Your task to perform on an android device: open the mobile data screen to see how much data has been used Image 0: 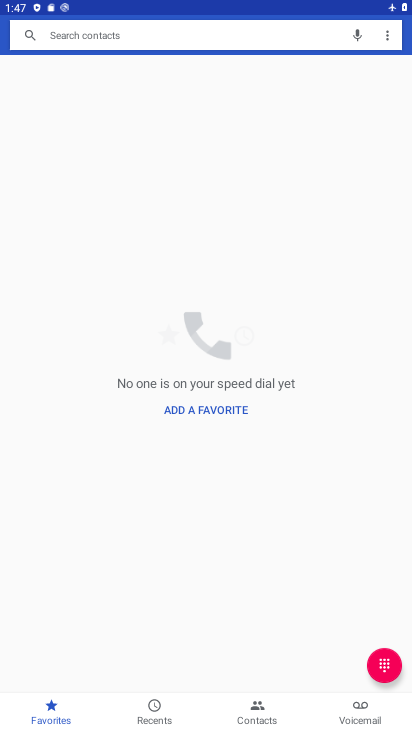
Step 0: press home button
Your task to perform on an android device: open the mobile data screen to see how much data has been used Image 1: 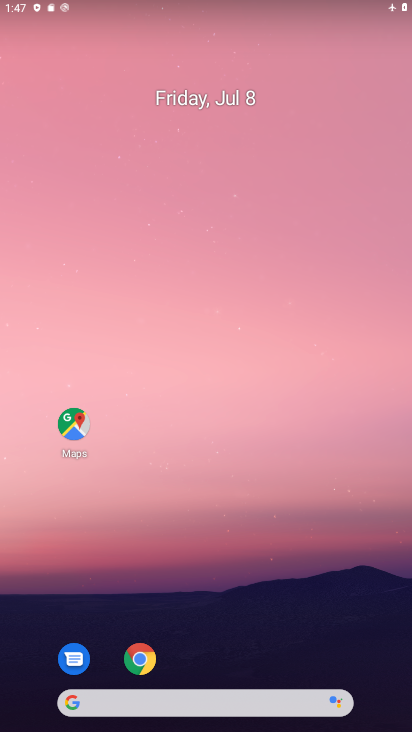
Step 1: drag from (236, 620) to (254, 0)
Your task to perform on an android device: open the mobile data screen to see how much data has been used Image 2: 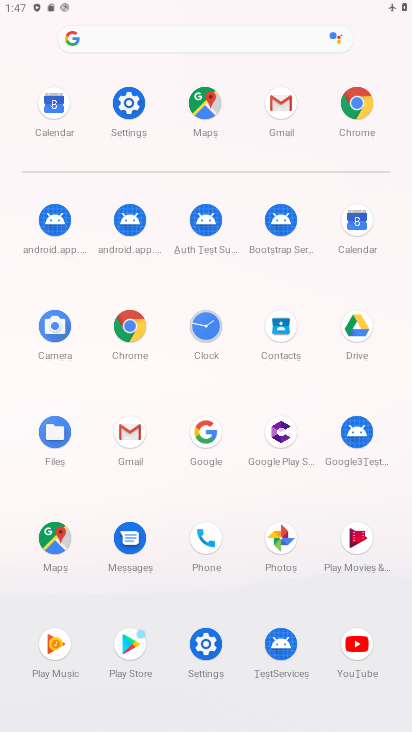
Step 2: click (219, 652)
Your task to perform on an android device: open the mobile data screen to see how much data has been used Image 3: 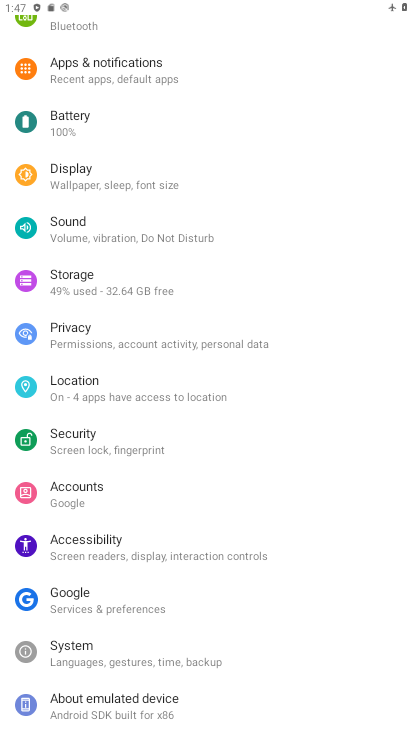
Step 3: drag from (165, 117) to (236, 571)
Your task to perform on an android device: open the mobile data screen to see how much data has been used Image 4: 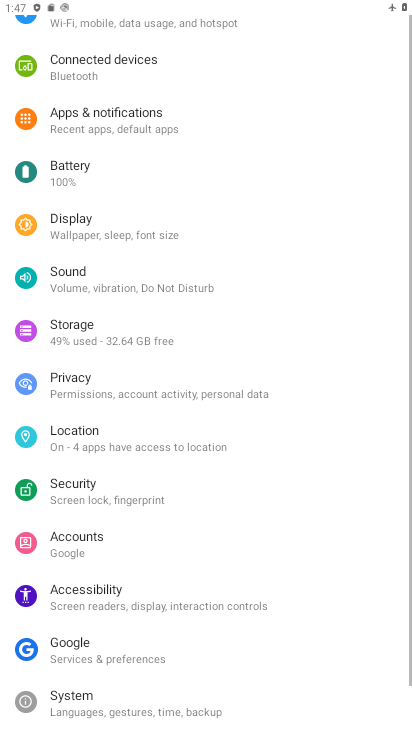
Step 4: click (171, 114)
Your task to perform on an android device: open the mobile data screen to see how much data has been used Image 5: 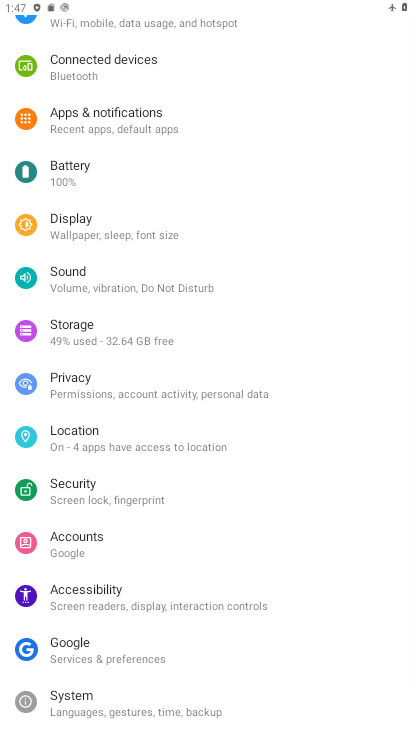
Step 5: drag from (171, 72) to (245, 468)
Your task to perform on an android device: open the mobile data screen to see how much data has been used Image 6: 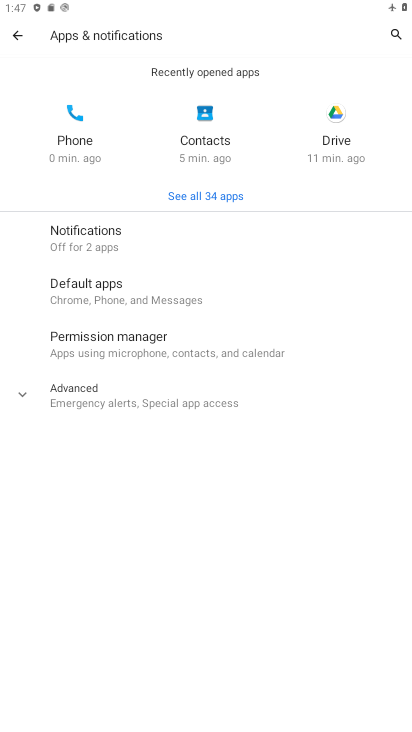
Step 6: press back button
Your task to perform on an android device: open the mobile data screen to see how much data has been used Image 7: 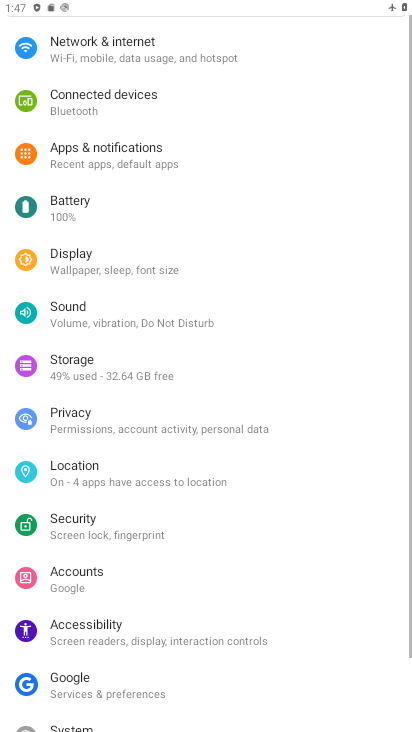
Step 7: drag from (239, 123) to (209, 589)
Your task to perform on an android device: open the mobile data screen to see how much data has been used Image 8: 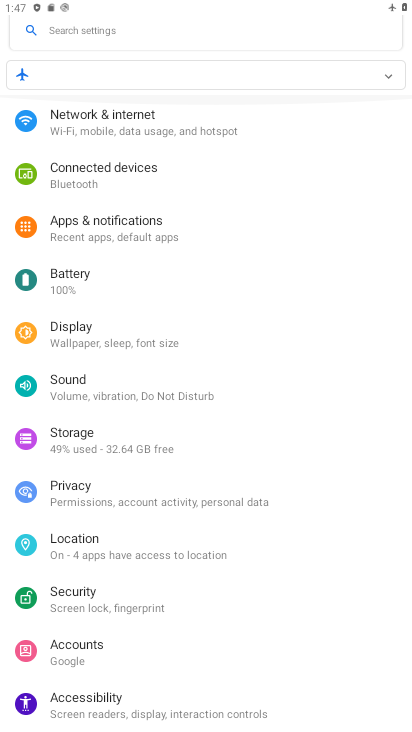
Step 8: click (120, 145)
Your task to perform on an android device: open the mobile data screen to see how much data has been used Image 9: 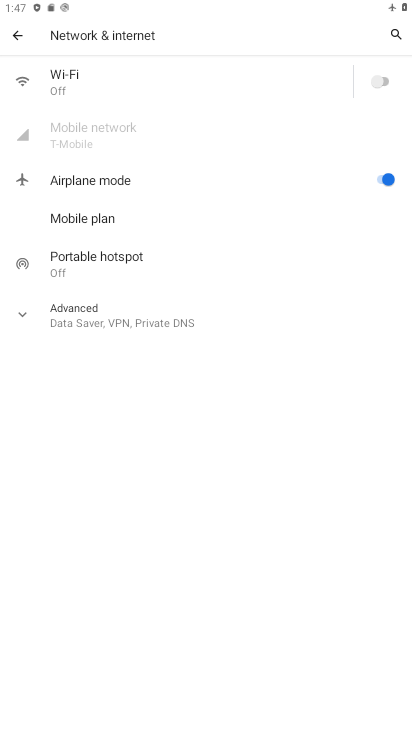
Step 9: click (122, 320)
Your task to perform on an android device: open the mobile data screen to see how much data has been used Image 10: 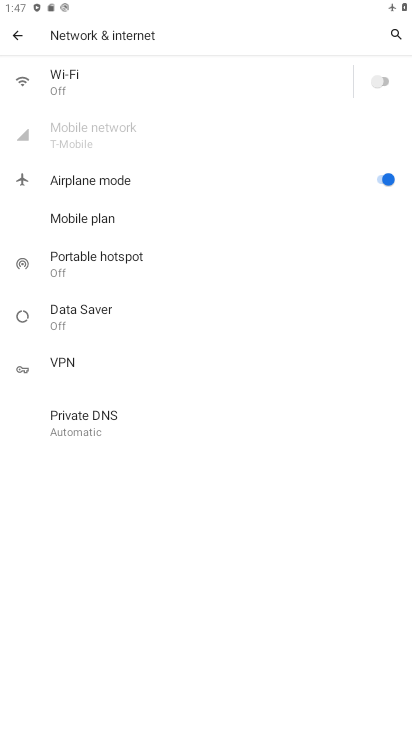
Step 10: click (119, 135)
Your task to perform on an android device: open the mobile data screen to see how much data has been used Image 11: 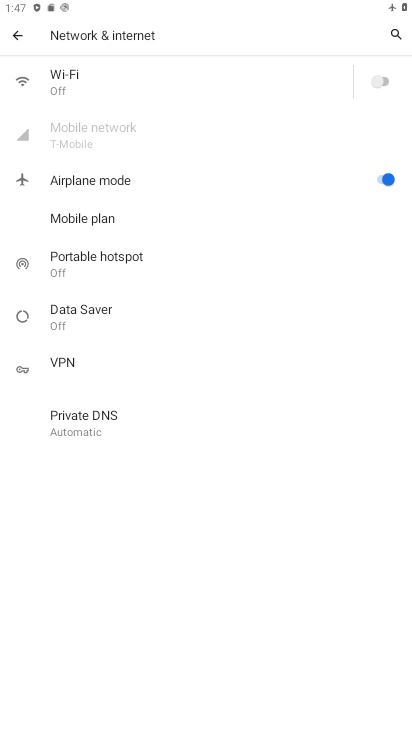
Step 11: click (119, 135)
Your task to perform on an android device: open the mobile data screen to see how much data has been used Image 12: 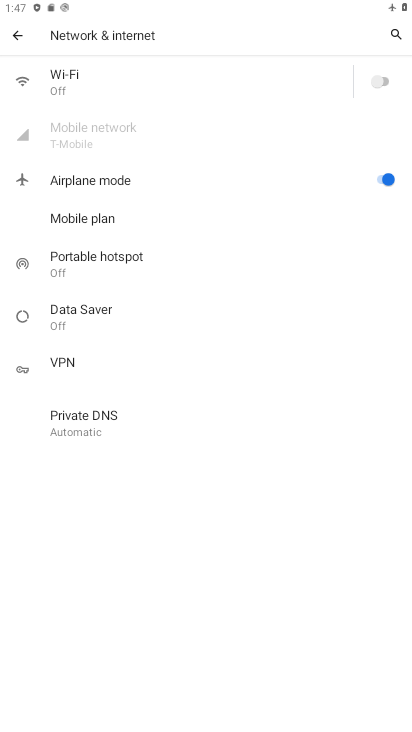
Step 12: click (130, 228)
Your task to perform on an android device: open the mobile data screen to see how much data has been used Image 13: 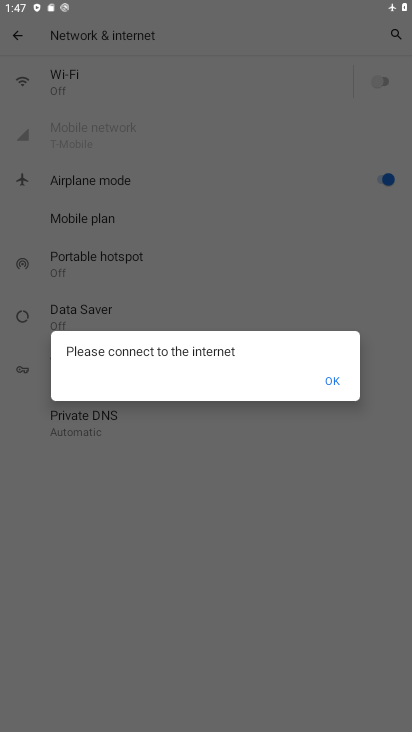
Step 13: click (363, 377)
Your task to perform on an android device: open the mobile data screen to see how much data has been used Image 14: 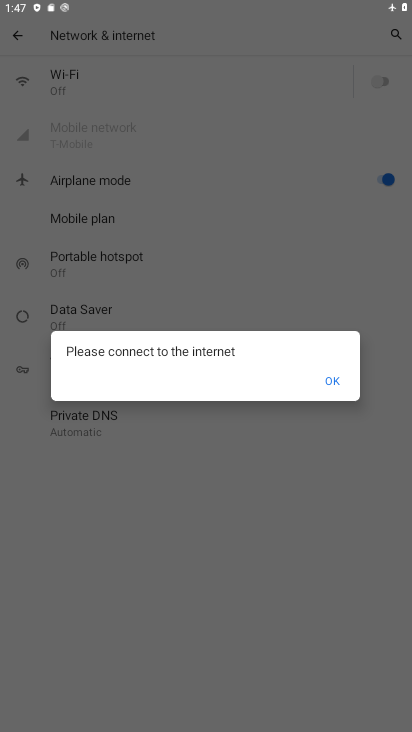
Step 14: click (341, 387)
Your task to perform on an android device: open the mobile data screen to see how much data has been used Image 15: 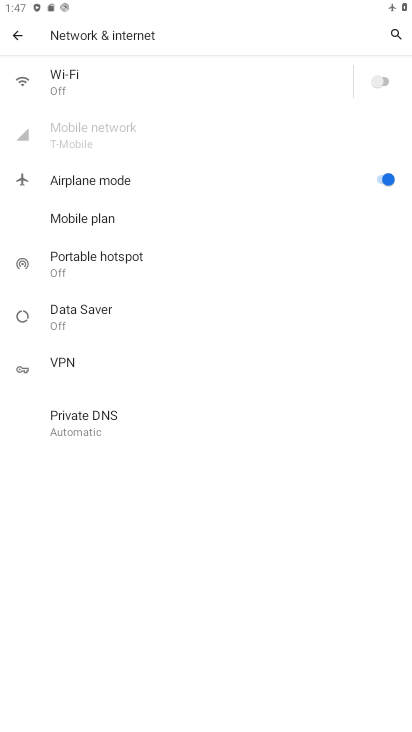
Step 15: task complete